Your task to perform on an android device: turn on showing notifications on the lock screen Image 0: 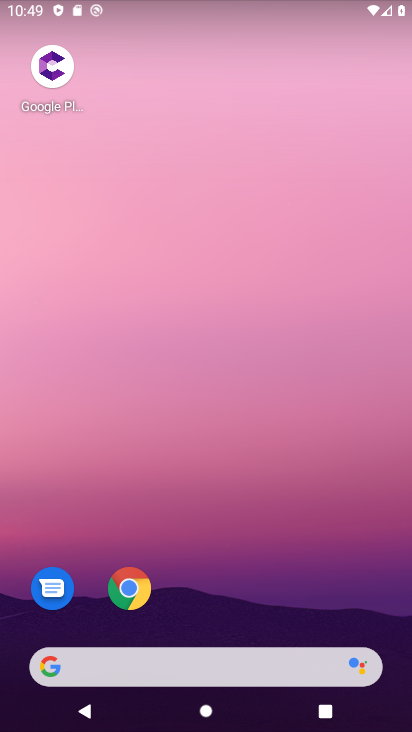
Step 0: drag from (252, 603) to (199, 93)
Your task to perform on an android device: turn on showing notifications on the lock screen Image 1: 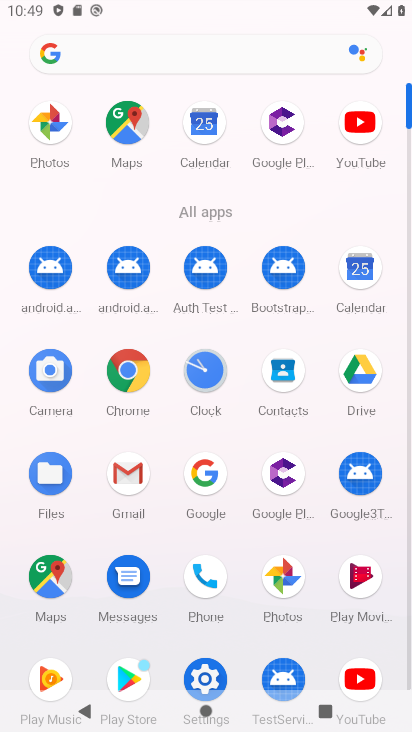
Step 1: drag from (168, 386) to (159, 265)
Your task to perform on an android device: turn on showing notifications on the lock screen Image 2: 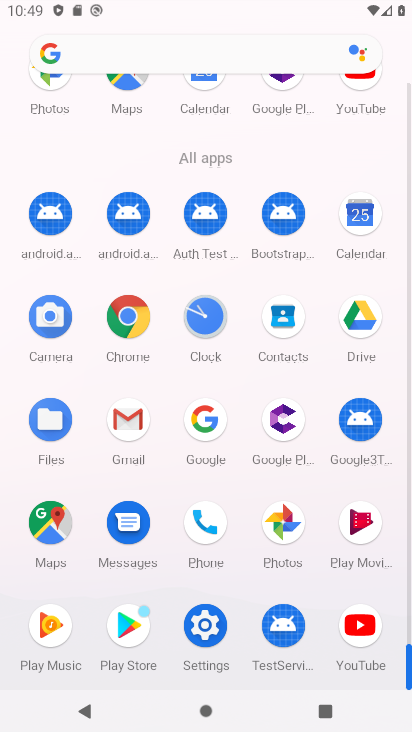
Step 2: click (205, 625)
Your task to perform on an android device: turn on showing notifications on the lock screen Image 3: 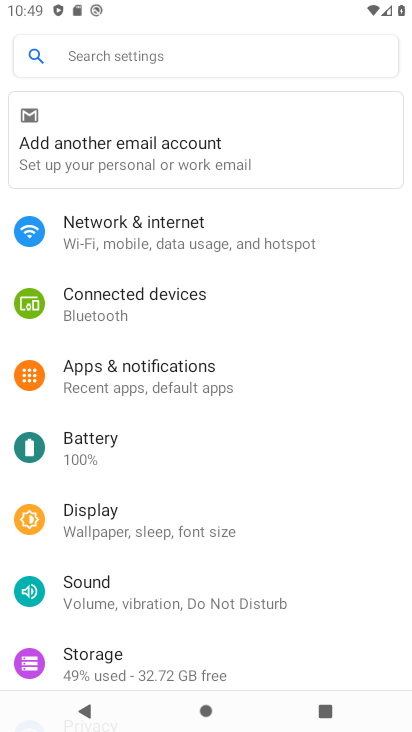
Step 3: click (165, 372)
Your task to perform on an android device: turn on showing notifications on the lock screen Image 4: 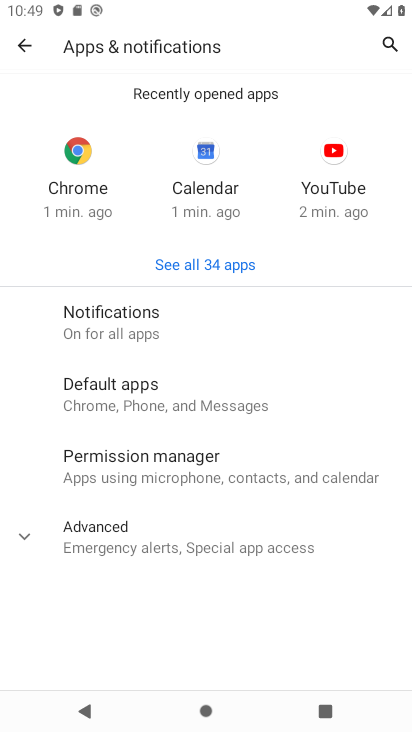
Step 4: click (128, 331)
Your task to perform on an android device: turn on showing notifications on the lock screen Image 5: 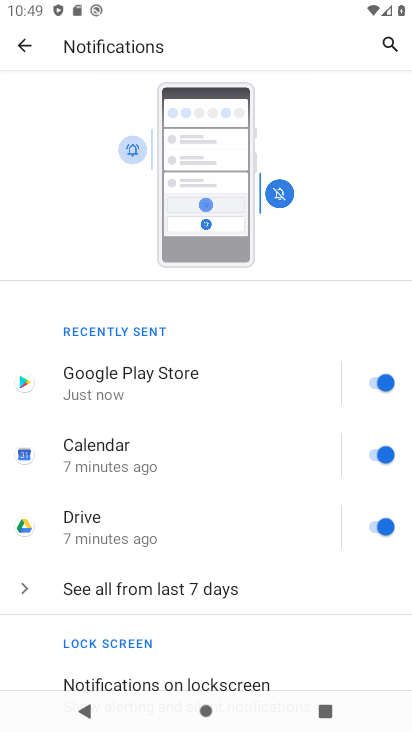
Step 5: drag from (207, 637) to (212, 416)
Your task to perform on an android device: turn on showing notifications on the lock screen Image 6: 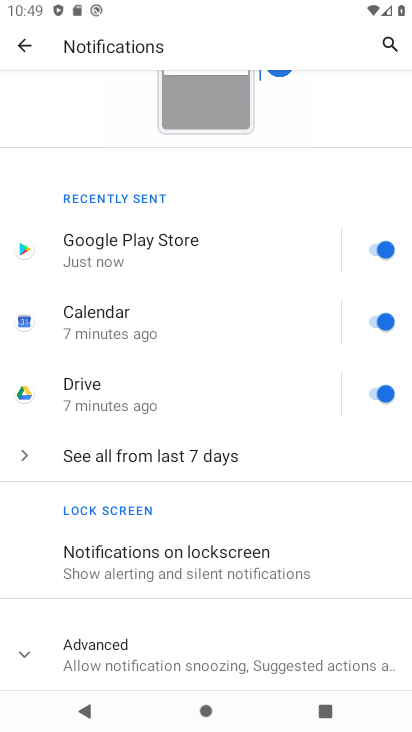
Step 6: click (206, 566)
Your task to perform on an android device: turn on showing notifications on the lock screen Image 7: 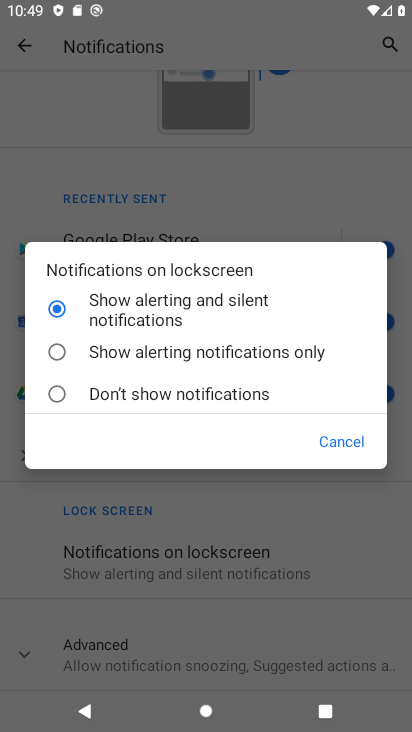
Step 7: click (58, 303)
Your task to perform on an android device: turn on showing notifications on the lock screen Image 8: 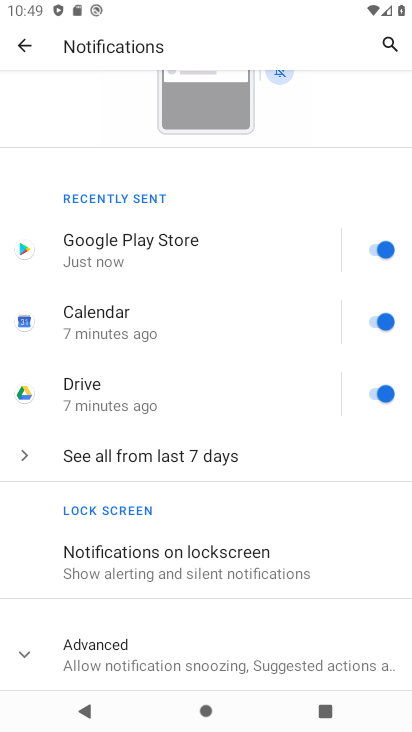
Step 8: task complete